Your task to perform on an android device: Go to Yahoo.com Image 0: 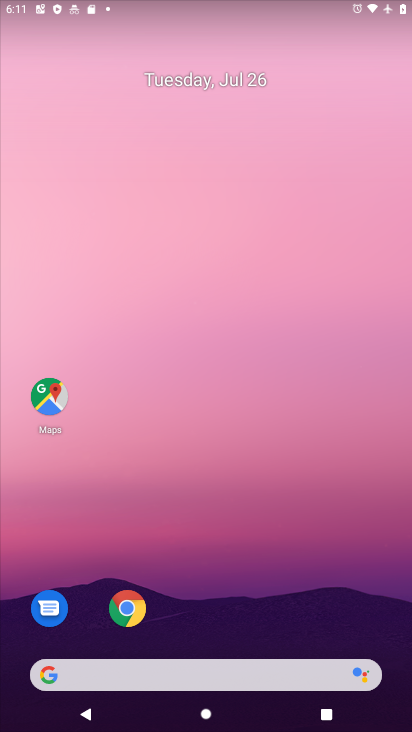
Step 0: press home button
Your task to perform on an android device: Go to Yahoo.com Image 1: 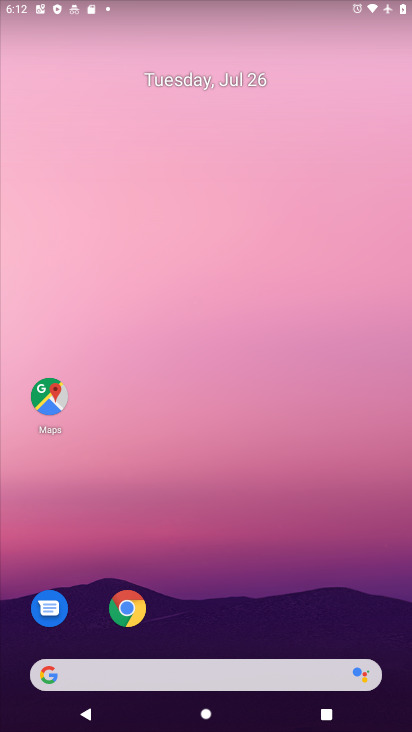
Step 1: click (49, 674)
Your task to perform on an android device: Go to Yahoo.com Image 2: 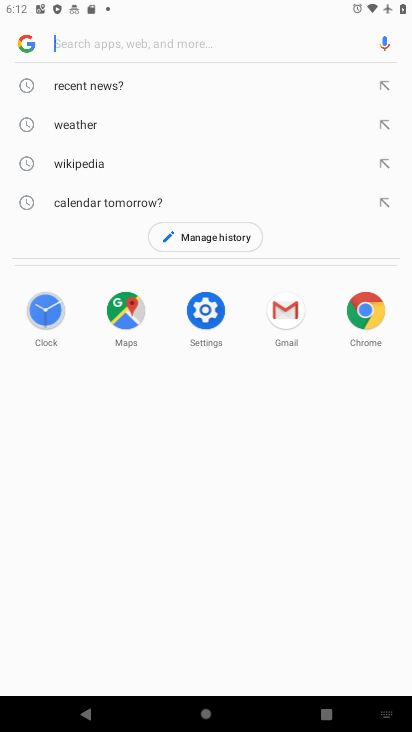
Step 2: type "Yahoo.com"
Your task to perform on an android device: Go to Yahoo.com Image 3: 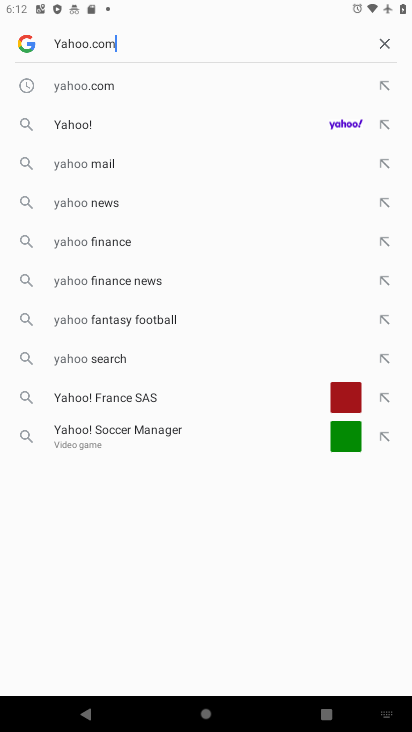
Step 3: press enter
Your task to perform on an android device: Go to Yahoo.com Image 4: 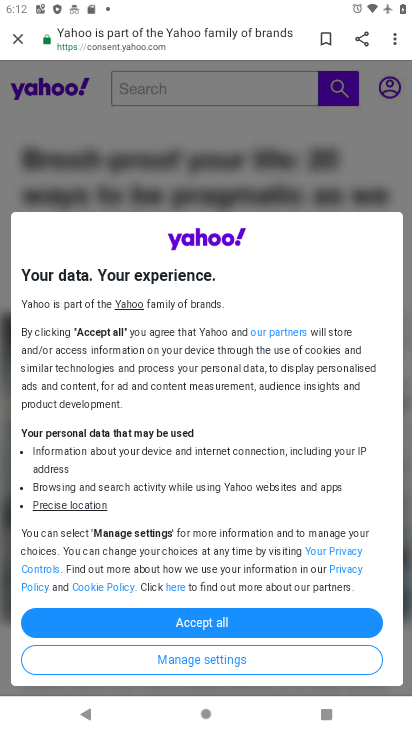
Step 4: click (129, 629)
Your task to perform on an android device: Go to Yahoo.com Image 5: 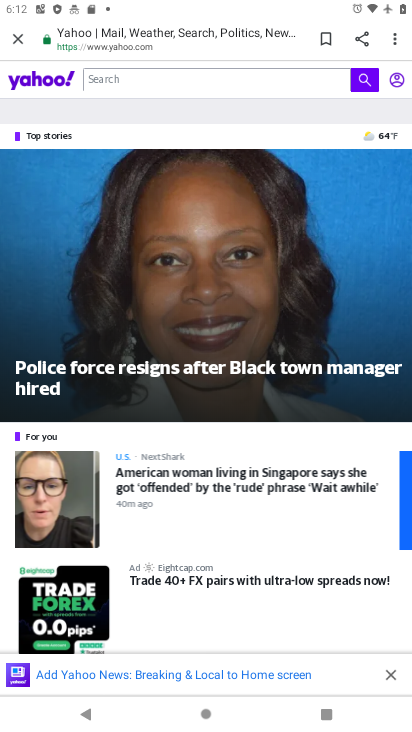
Step 5: task complete